Your task to perform on an android device: Open eBay Image 0: 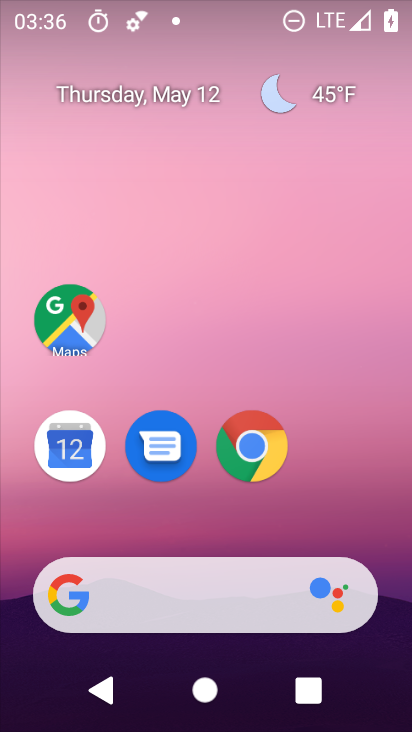
Step 0: click (237, 462)
Your task to perform on an android device: Open eBay Image 1: 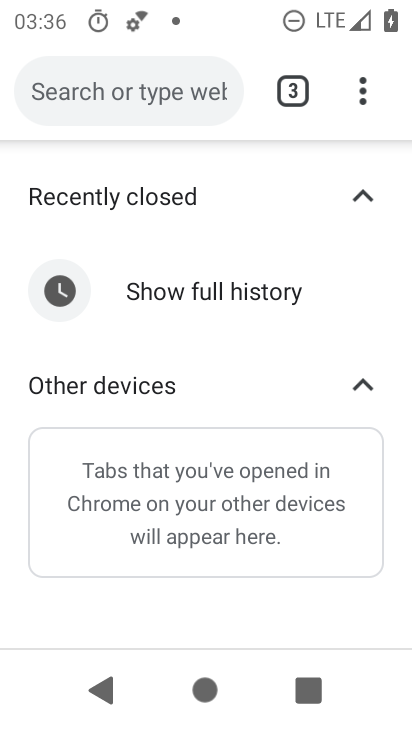
Step 1: click (297, 79)
Your task to perform on an android device: Open eBay Image 2: 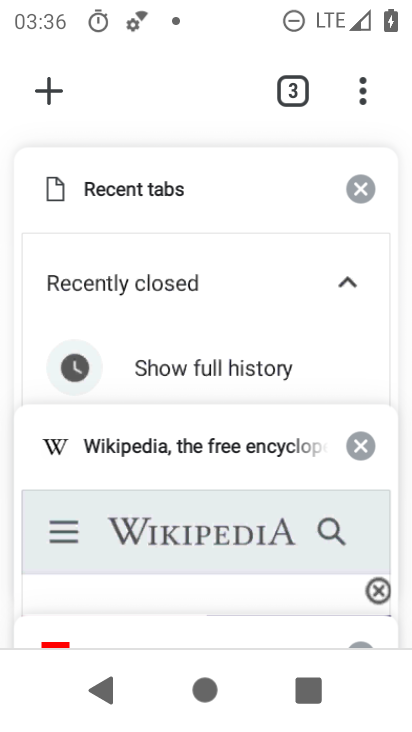
Step 2: click (43, 80)
Your task to perform on an android device: Open eBay Image 3: 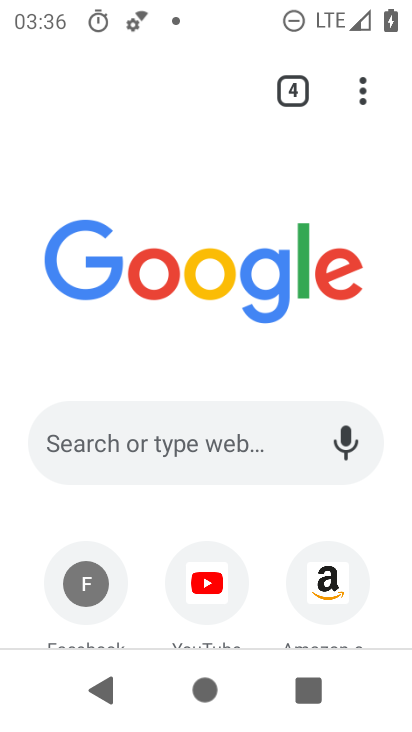
Step 3: drag from (238, 490) to (233, 166)
Your task to perform on an android device: Open eBay Image 4: 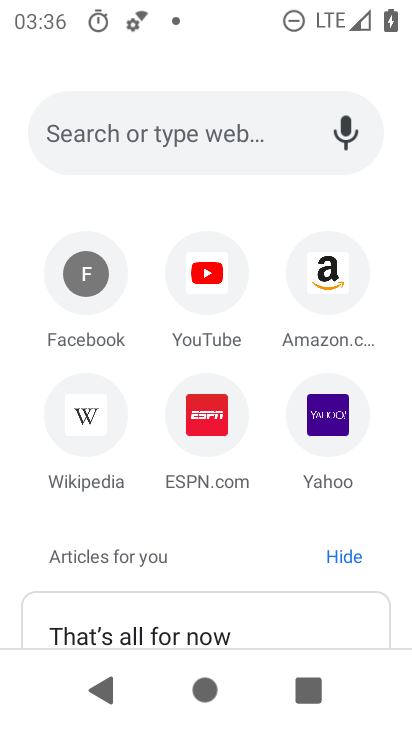
Step 4: click (152, 121)
Your task to perform on an android device: Open eBay Image 5: 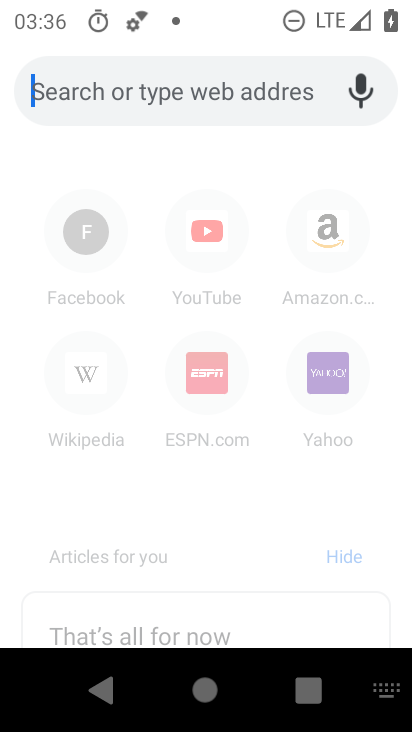
Step 5: type "eBay"
Your task to perform on an android device: Open eBay Image 6: 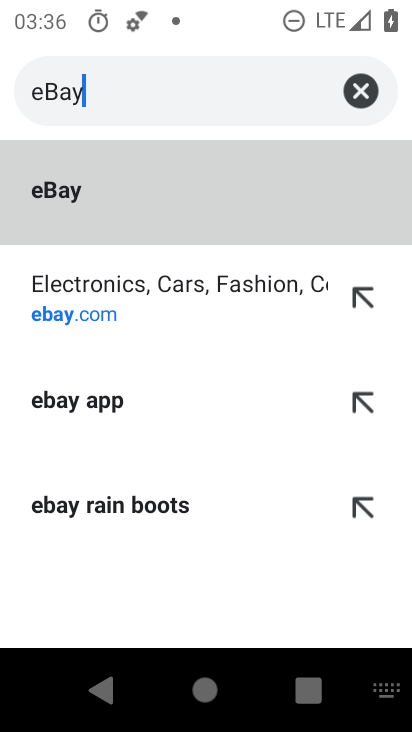
Step 6: click (128, 224)
Your task to perform on an android device: Open eBay Image 7: 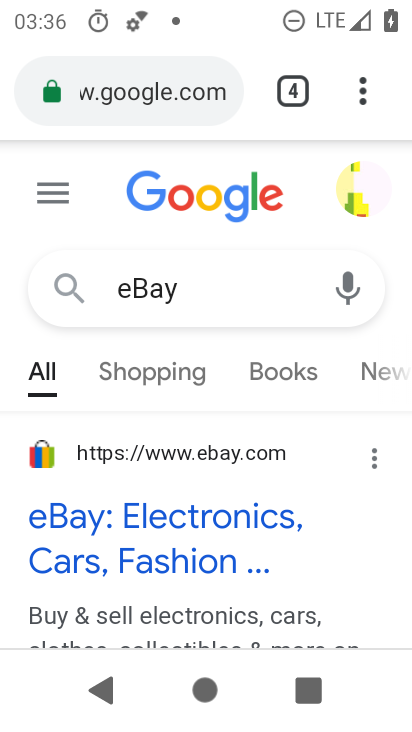
Step 7: click (121, 451)
Your task to perform on an android device: Open eBay Image 8: 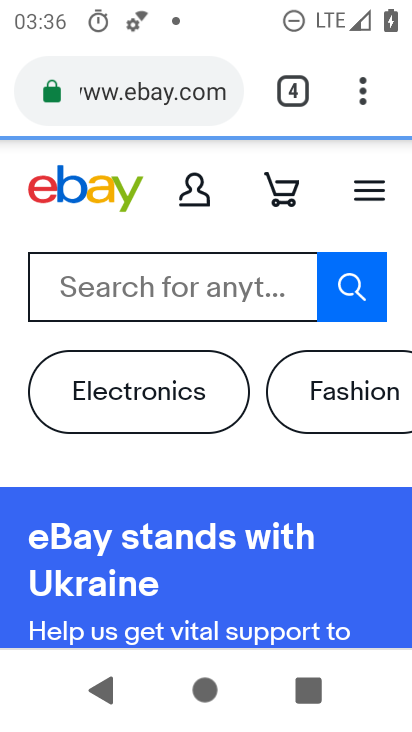
Step 8: task complete